Your task to perform on an android device: turn on javascript in the chrome app Image 0: 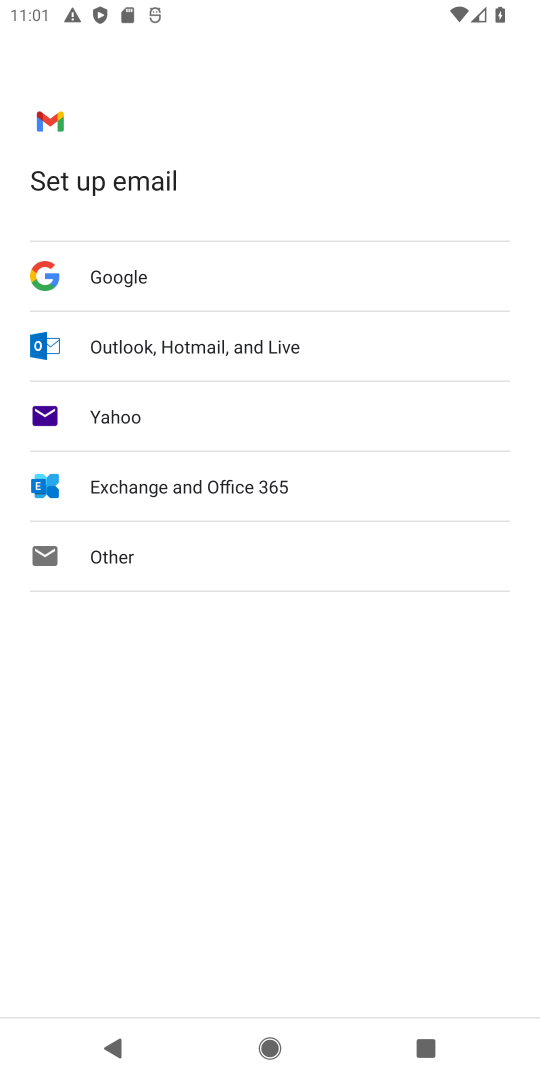
Step 0: press home button
Your task to perform on an android device: turn on javascript in the chrome app Image 1: 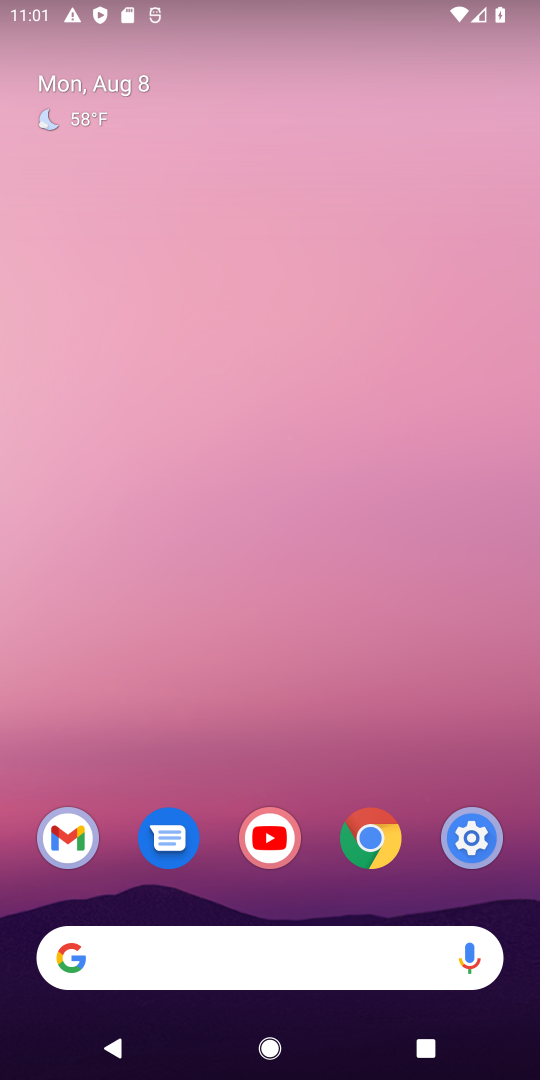
Step 1: click (364, 845)
Your task to perform on an android device: turn on javascript in the chrome app Image 2: 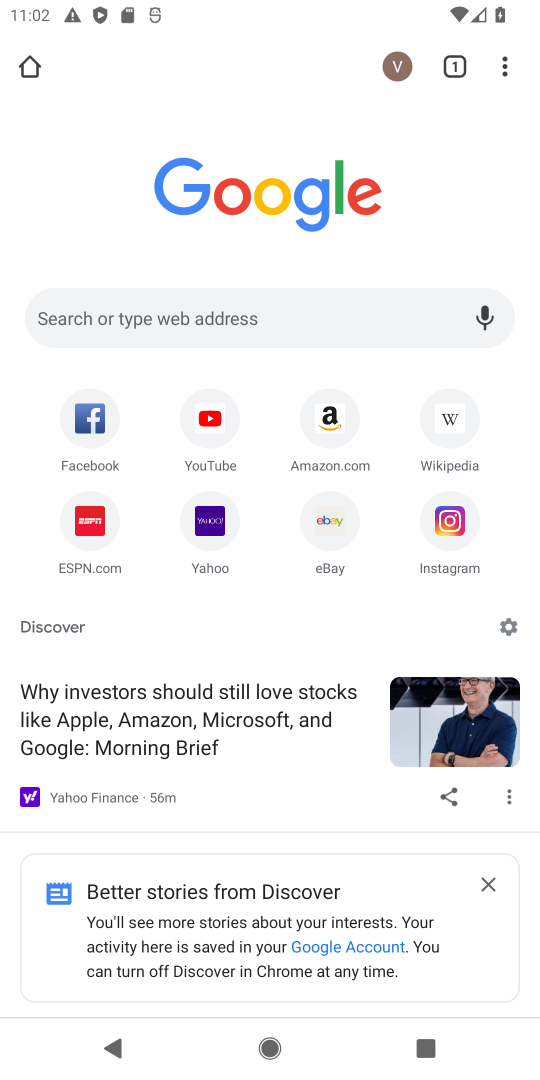
Step 2: drag from (506, 70) to (292, 585)
Your task to perform on an android device: turn on javascript in the chrome app Image 3: 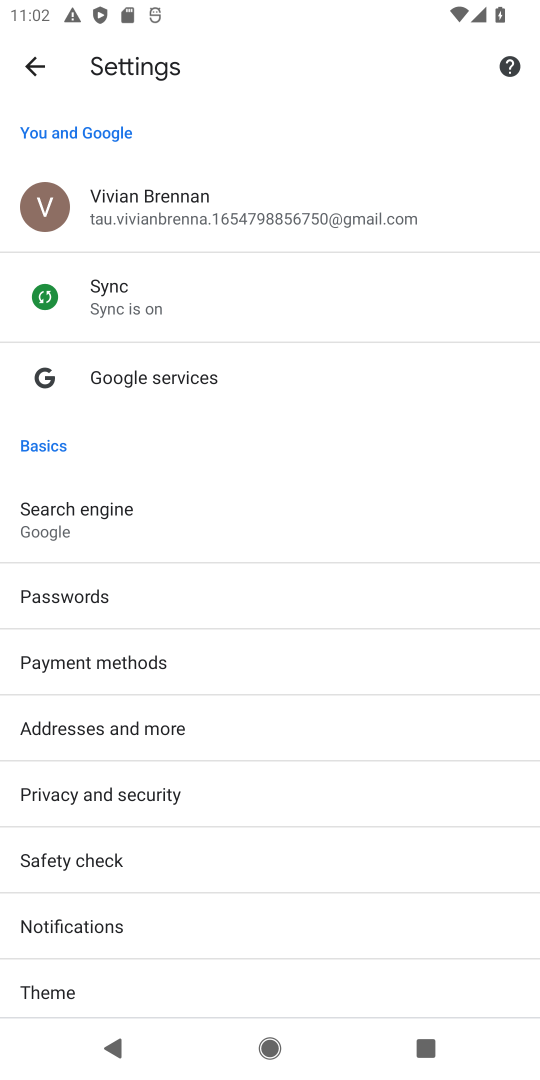
Step 3: drag from (281, 933) to (307, 401)
Your task to perform on an android device: turn on javascript in the chrome app Image 4: 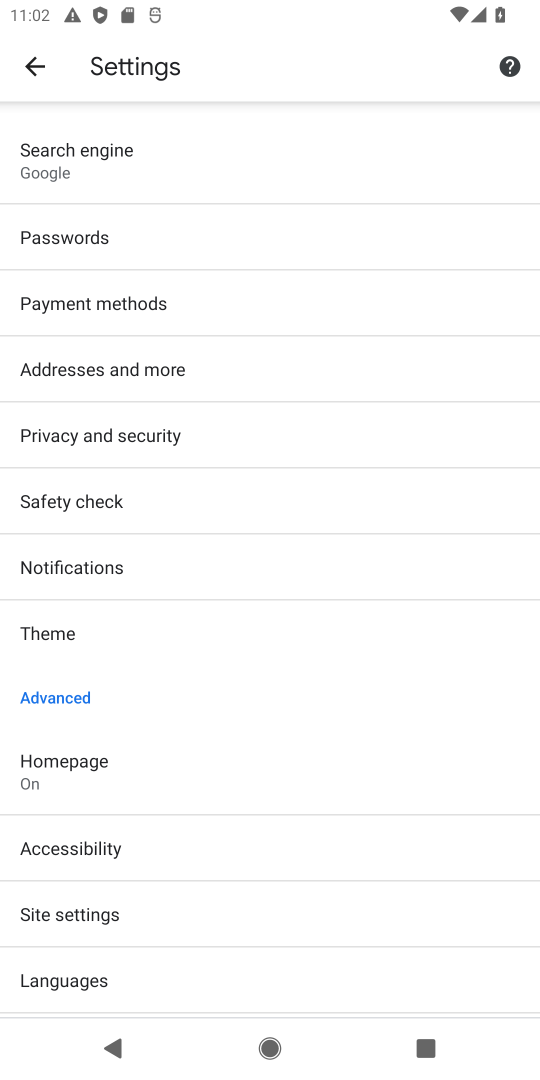
Step 4: click (72, 918)
Your task to perform on an android device: turn on javascript in the chrome app Image 5: 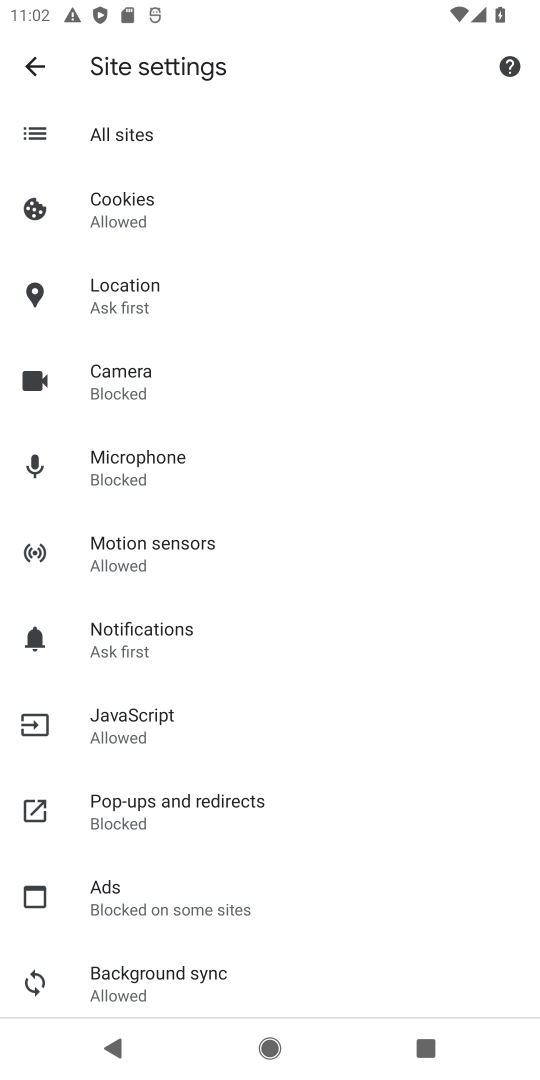
Step 5: click (119, 730)
Your task to perform on an android device: turn on javascript in the chrome app Image 6: 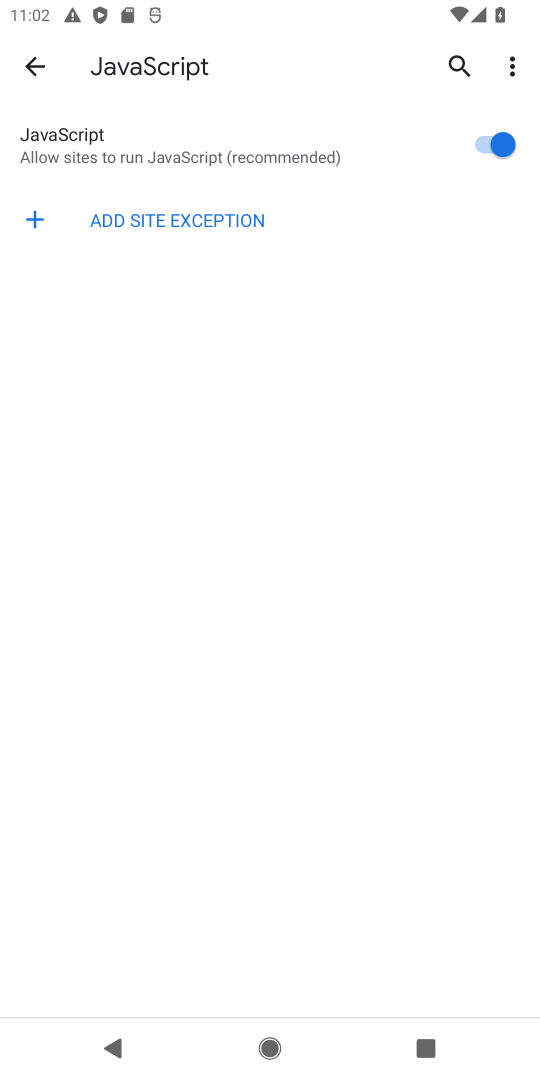
Step 6: task complete